Your task to perform on an android device: turn off data saver in the chrome app Image 0: 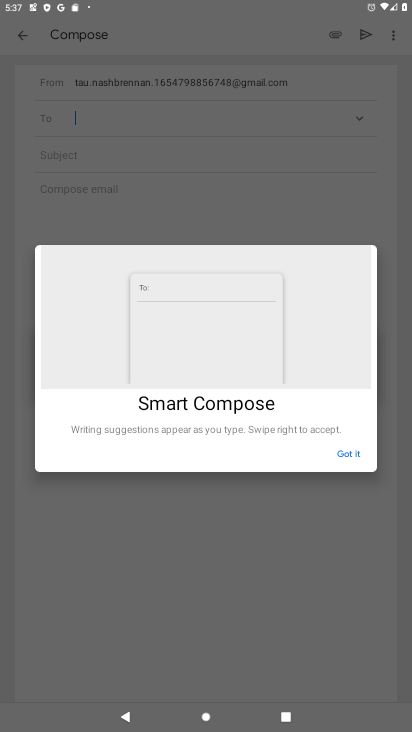
Step 0: press home button
Your task to perform on an android device: turn off data saver in the chrome app Image 1: 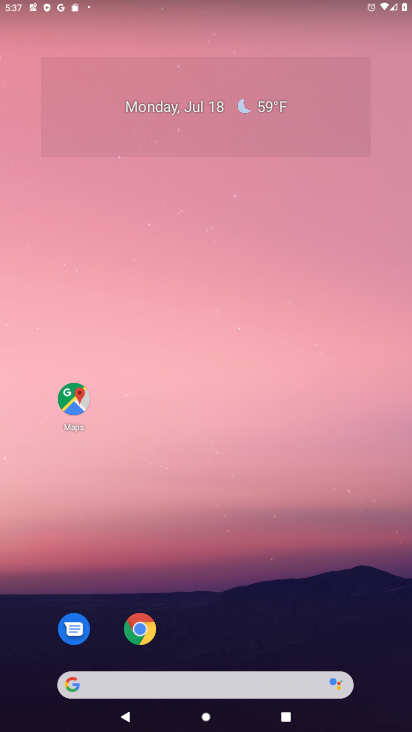
Step 1: drag from (257, 599) to (278, 86)
Your task to perform on an android device: turn off data saver in the chrome app Image 2: 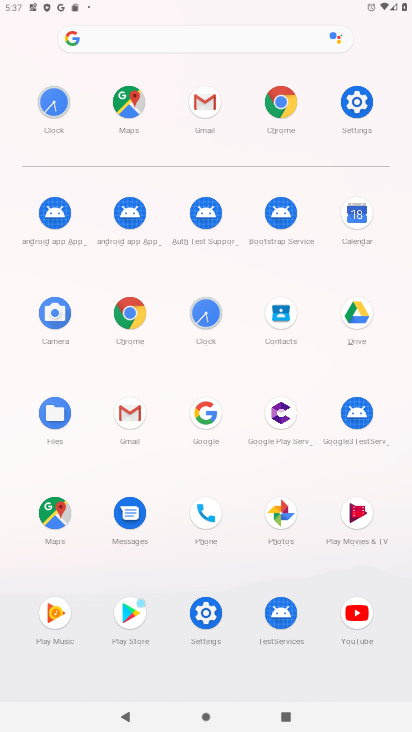
Step 2: click (283, 100)
Your task to perform on an android device: turn off data saver in the chrome app Image 3: 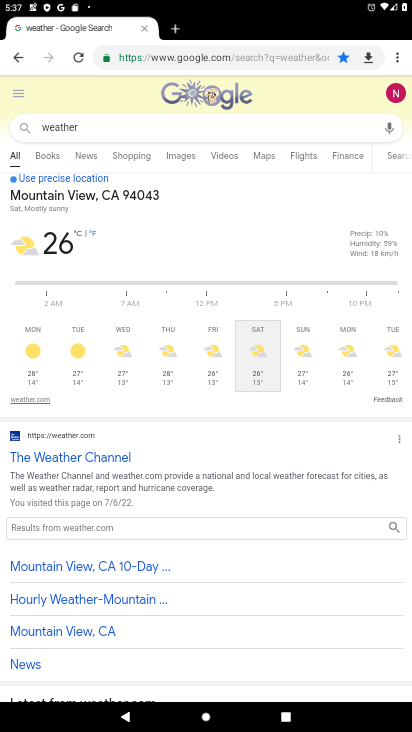
Step 3: drag from (400, 56) to (308, 352)
Your task to perform on an android device: turn off data saver in the chrome app Image 4: 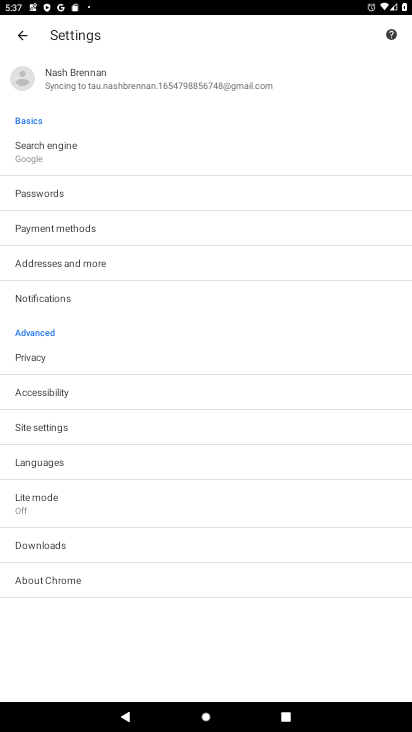
Step 4: click (84, 503)
Your task to perform on an android device: turn off data saver in the chrome app Image 5: 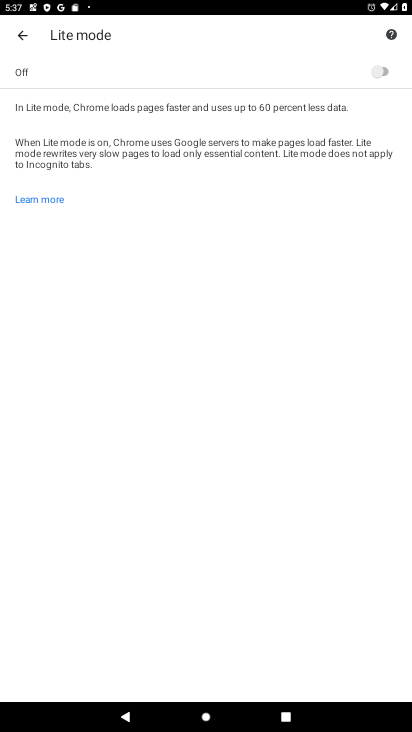
Step 5: task complete